Your task to perform on an android device: uninstall "The Home Depot" Image 0: 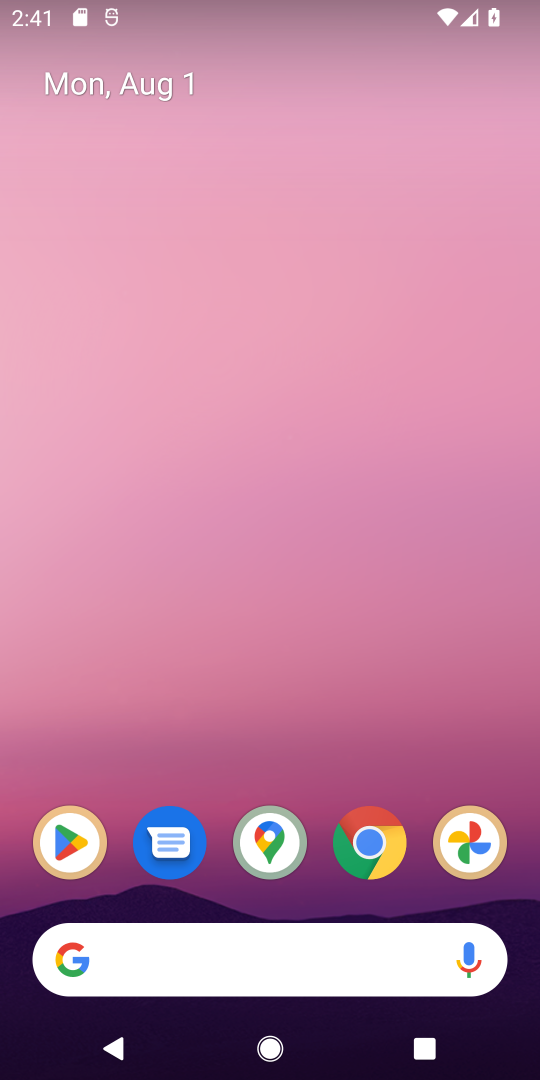
Step 0: click (85, 848)
Your task to perform on an android device: uninstall "The Home Depot" Image 1: 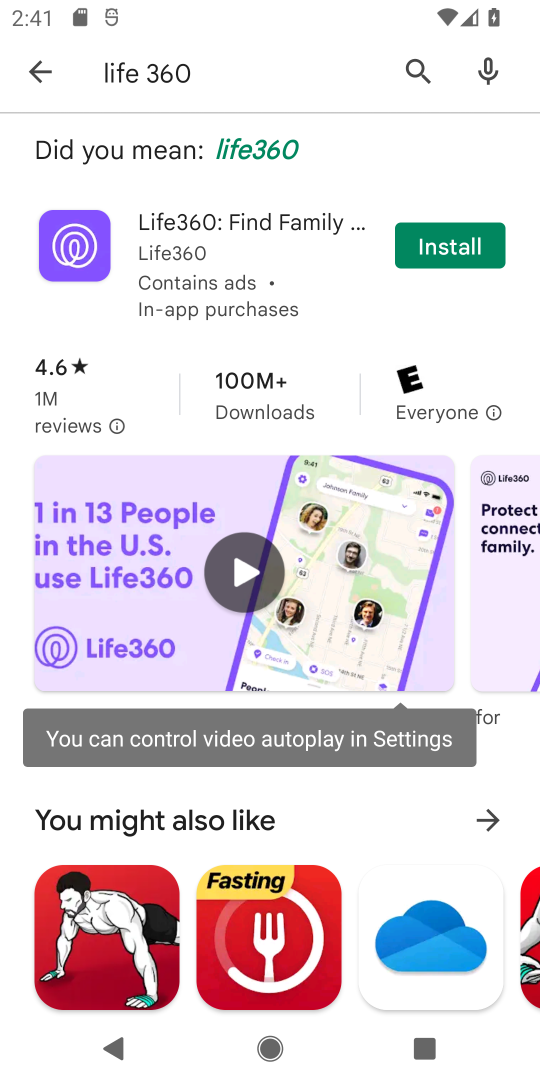
Step 1: click (221, 67)
Your task to perform on an android device: uninstall "The Home Depot" Image 2: 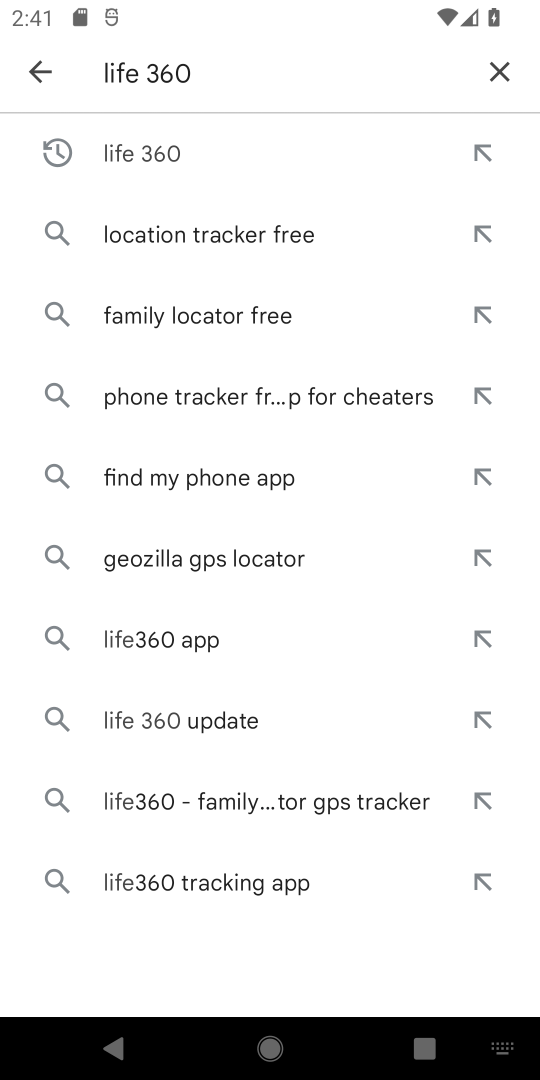
Step 2: click (509, 68)
Your task to perform on an android device: uninstall "The Home Depot" Image 3: 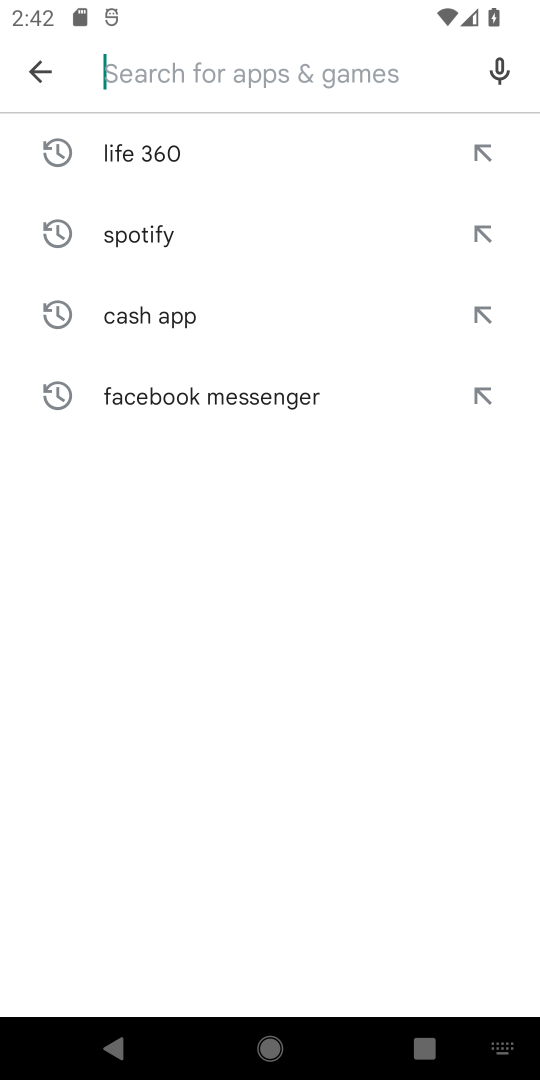
Step 3: type "the home depot"
Your task to perform on an android device: uninstall "The Home Depot" Image 4: 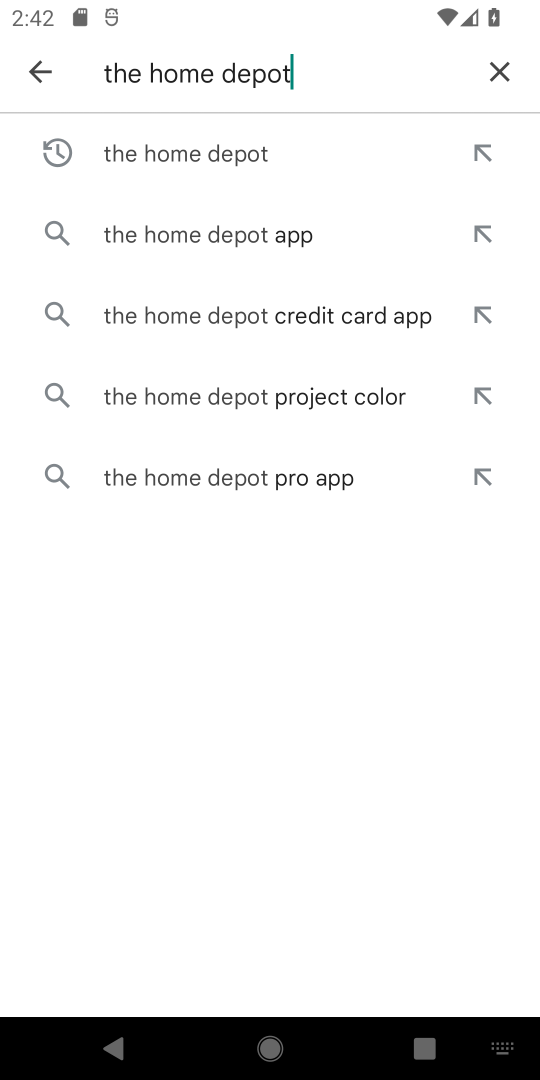
Step 4: click (213, 160)
Your task to perform on an android device: uninstall "The Home Depot" Image 5: 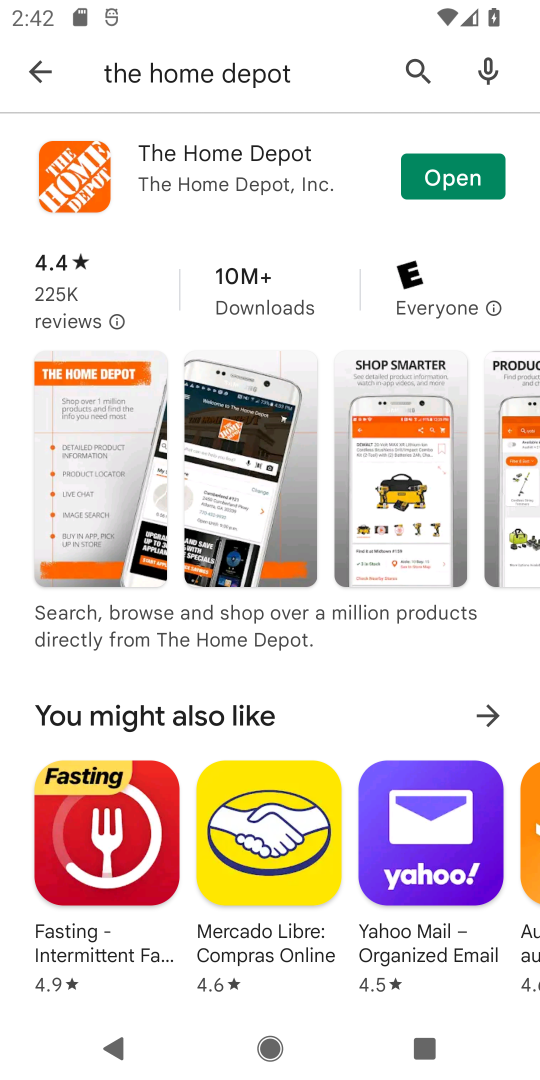
Step 5: click (116, 166)
Your task to perform on an android device: uninstall "The Home Depot" Image 6: 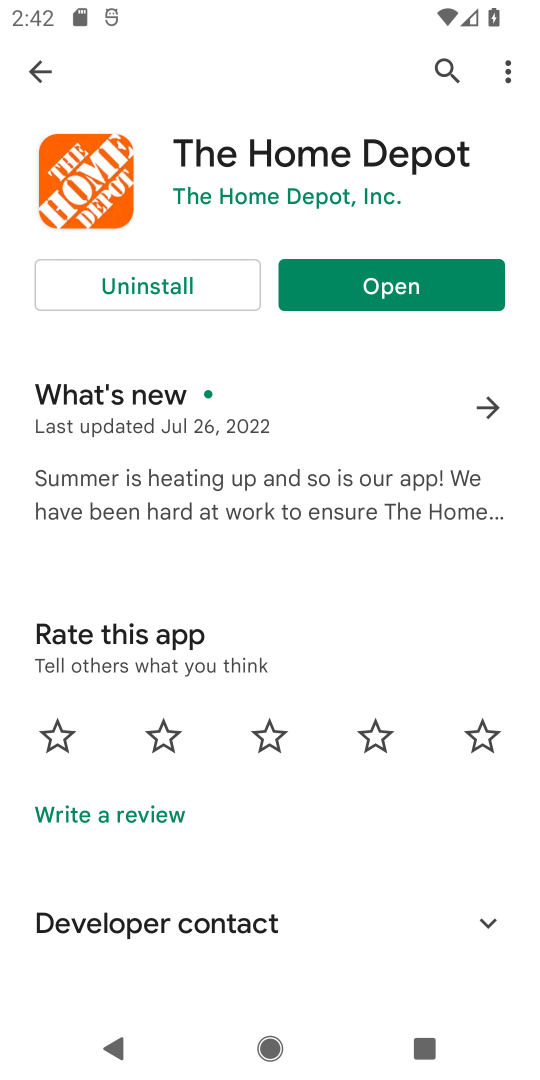
Step 6: click (177, 278)
Your task to perform on an android device: uninstall "The Home Depot" Image 7: 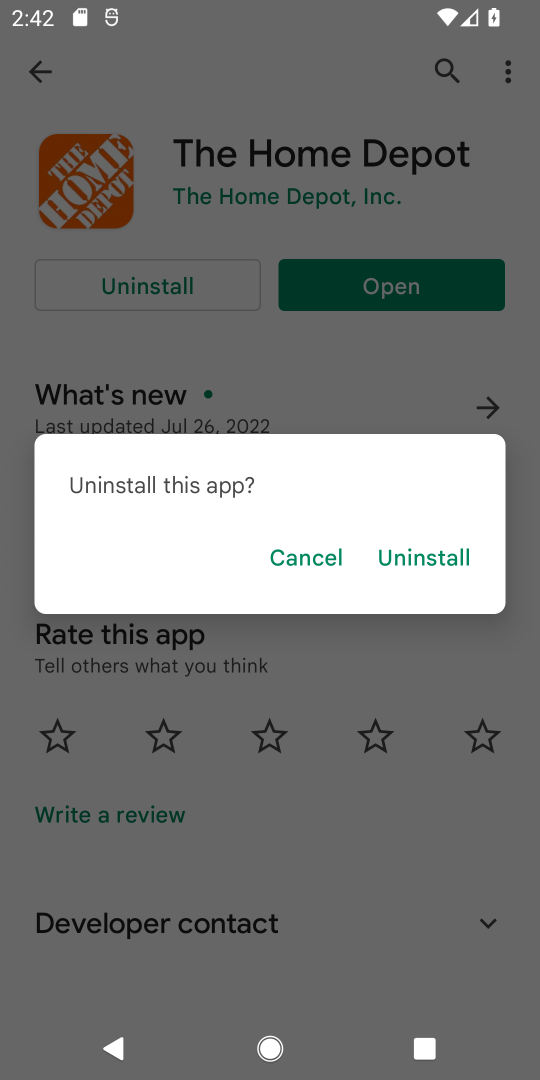
Step 7: click (410, 572)
Your task to perform on an android device: uninstall "The Home Depot" Image 8: 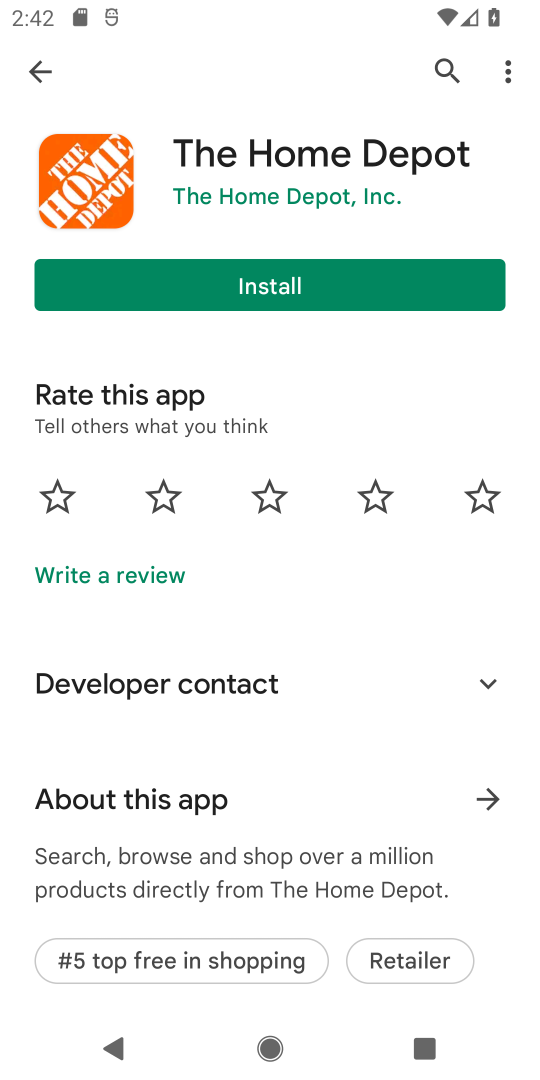
Step 8: task complete